Your task to perform on an android device: Open the phone app and click the voicemail tab. Image 0: 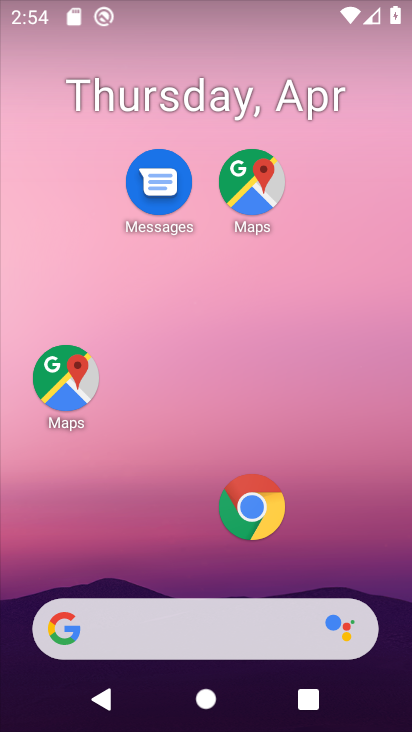
Step 0: drag from (198, 502) to (272, 21)
Your task to perform on an android device: Open the phone app and click the voicemail tab. Image 1: 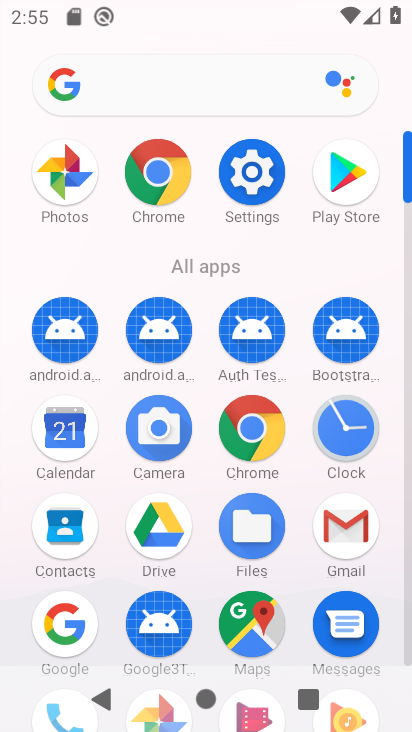
Step 1: drag from (98, 559) to (126, 116)
Your task to perform on an android device: Open the phone app and click the voicemail tab. Image 2: 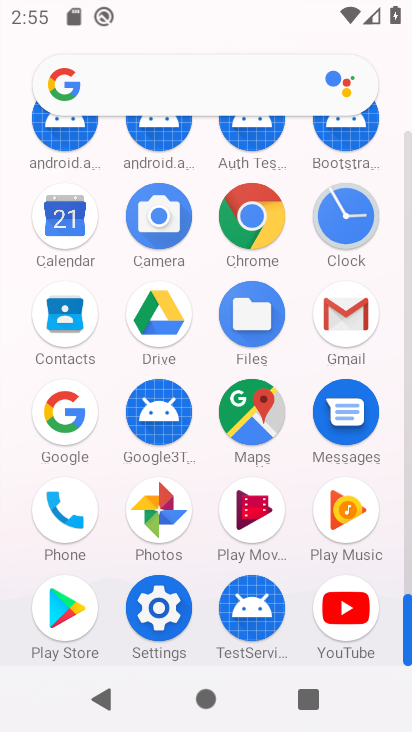
Step 2: click (60, 530)
Your task to perform on an android device: Open the phone app and click the voicemail tab. Image 3: 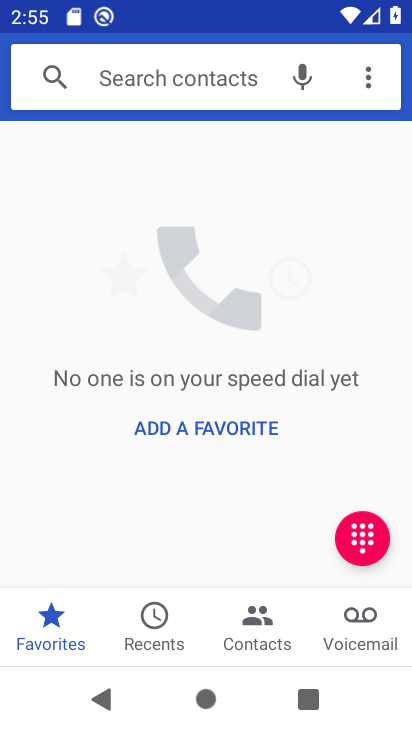
Step 3: click (345, 630)
Your task to perform on an android device: Open the phone app and click the voicemail tab. Image 4: 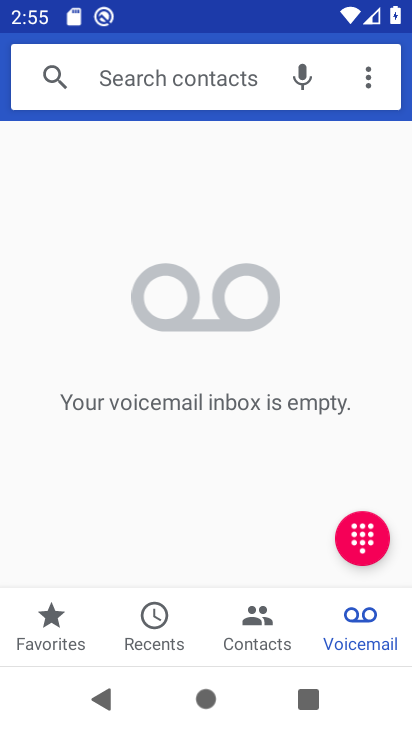
Step 4: task complete